Your task to perform on an android device: change alarm snooze length Image 0: 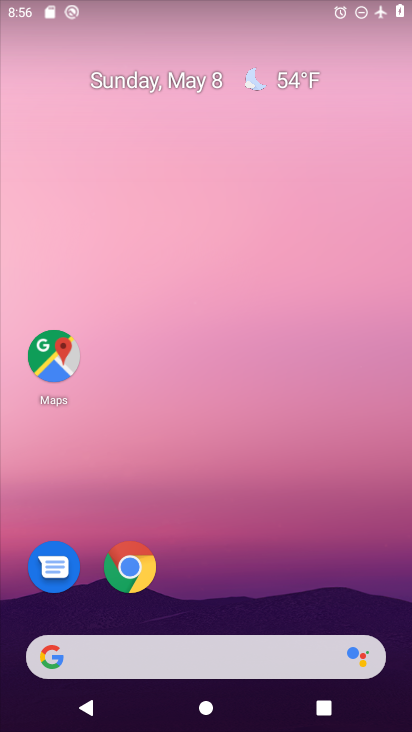
Step 0: drag from (324, 557) to (300, 101)
Your task to perform on an android device: change alarm snooze length Image 1: 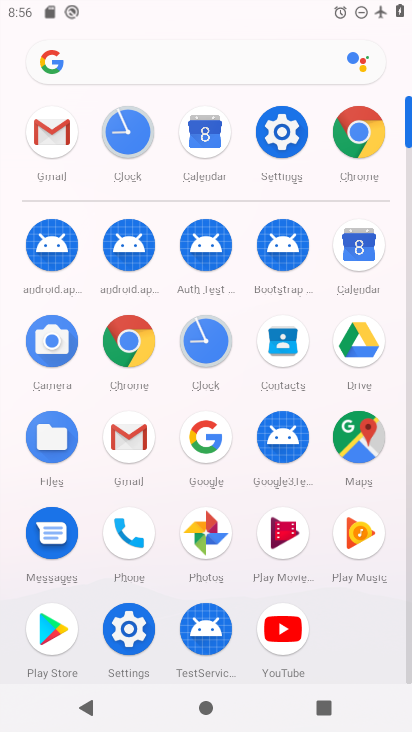
Step 1: click (122, 145)
Your task to perform on an android device: change alarm snooze length Image 2: 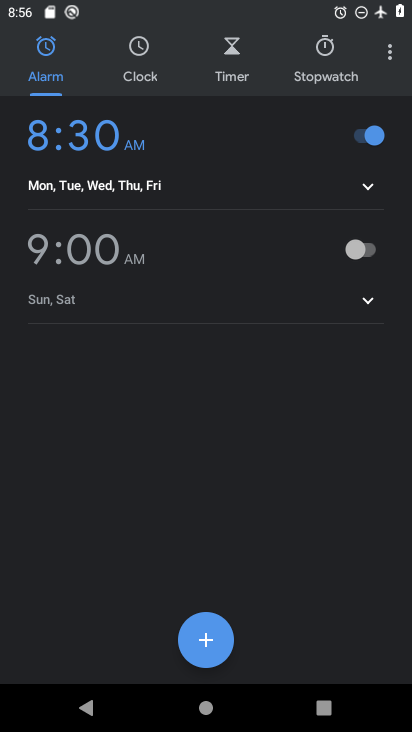
Step 2: click (396, 55)
Your task to perform on an android device: change alarm snooze length Image 3: 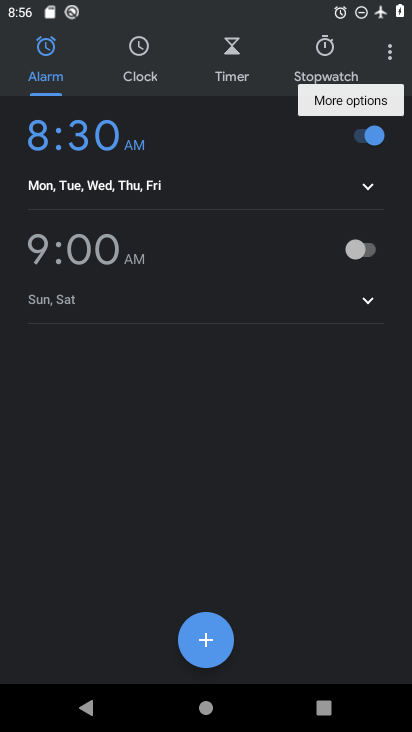
Step 3: click (396, 55)
Your task to perform on an android device: change alarm snooze length Image 4: 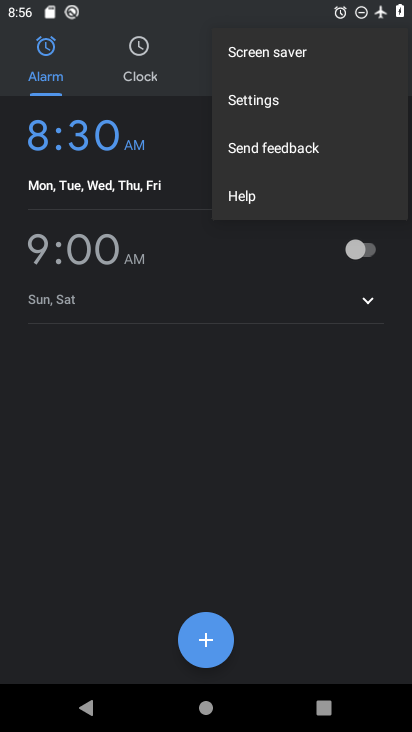
Step 4: click (280, 111)
Your task to perform on an android device: change alarm snooze length Image 5: 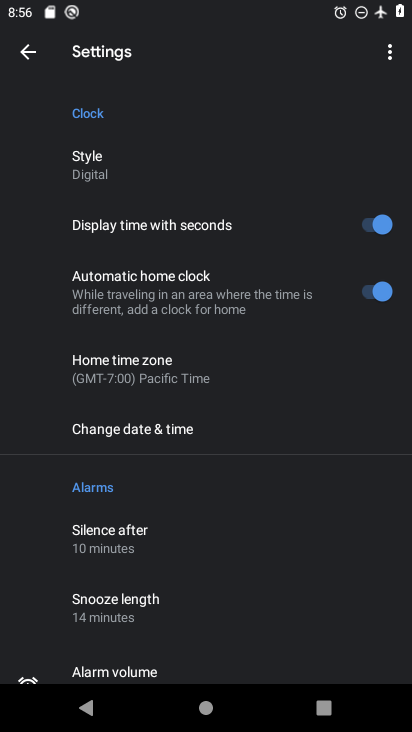
Step 5: drag from (263, 610) to (217, 164)
Your task to perform on an android device: change alarm snooze length Image 6: 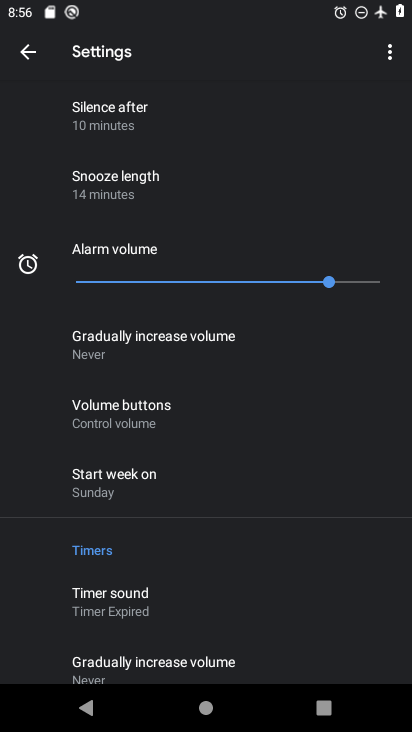
Step 6: click (134, 208)
Your task to perform on an android device: change alarm snooze length Image 7: 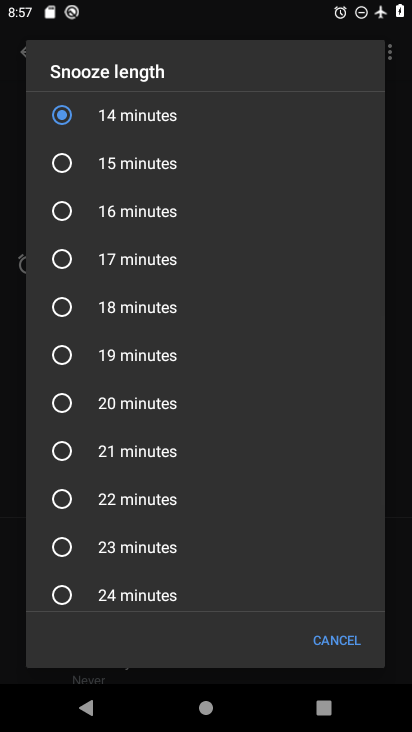
Step 7: click (65, 345)
Your task to perform on an android device: change alarm snooze length Image 8: 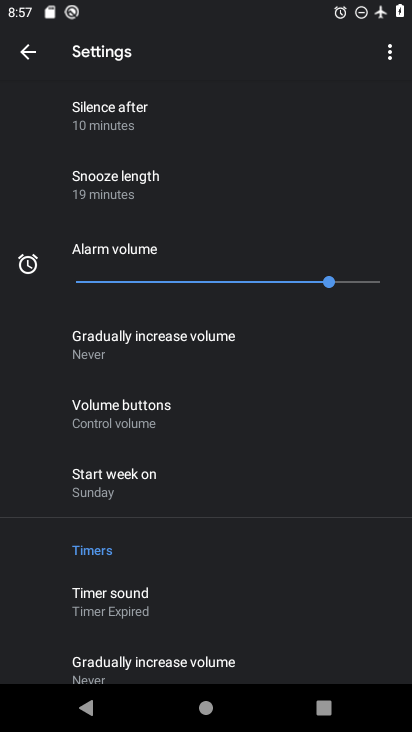
Step 8: task complete